Your task to perform on an android device: turn off location history Image 0: 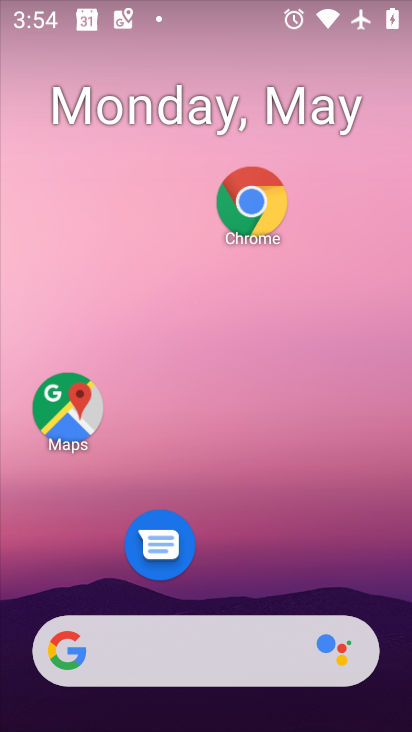
Step 0: drag from (227, 592) to (271, 147)
Your task to perform on an android device: turn off location history Image 1: 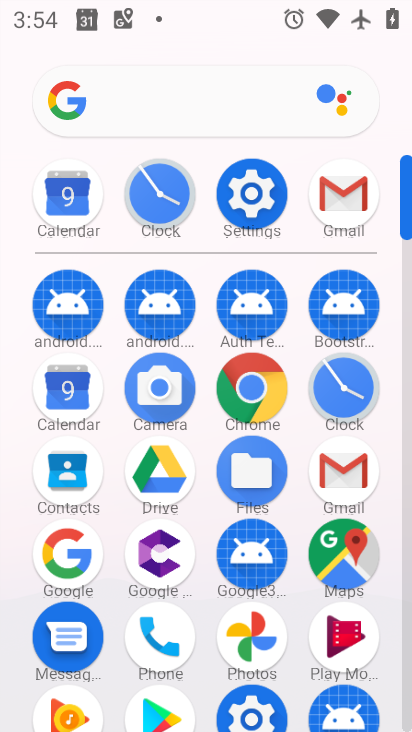
Step 1: click (248, 218)
Your task to perform on an android device: turn off location history Image 2: 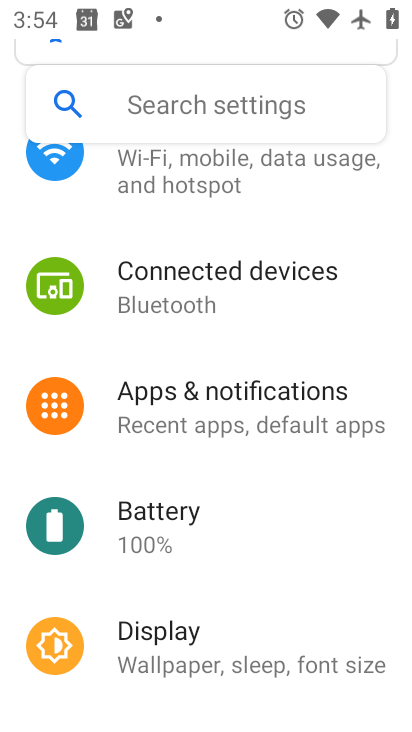
Step 2: drag from (244, 553) to (246, 260)
Your task to perform on an android device: turn off location history Image 3: 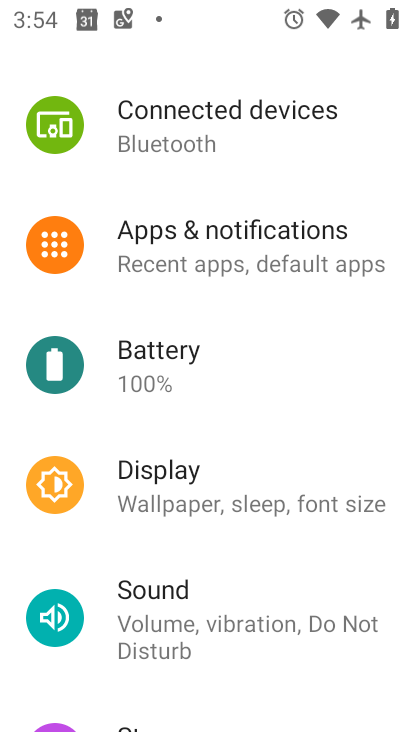
Step 3: drag from (259, 562) to (261, 288)
Your task to perform on an android device: turn off location history Image 4: 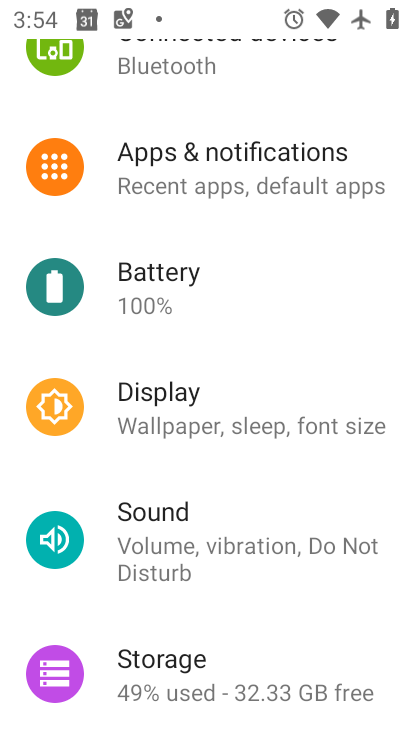
Step 4: drag from (232, 622) to (240, 334)
Your task to perform on an android device: turn off location history Image 5: 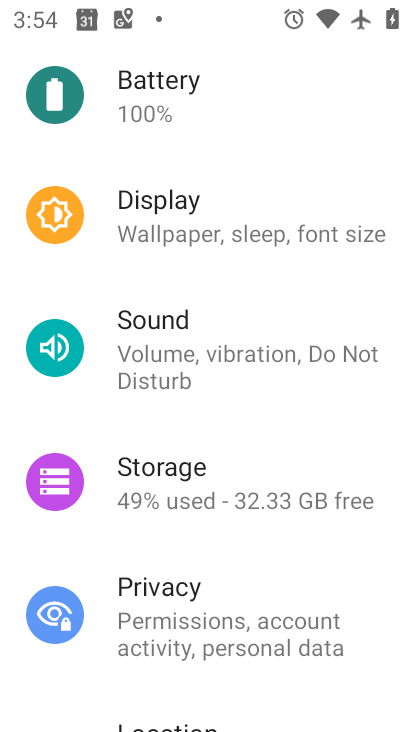
Step 5: drag from (252, 601) to (264, 223)
Your task to perform on an android device: turn off location history Image 6: 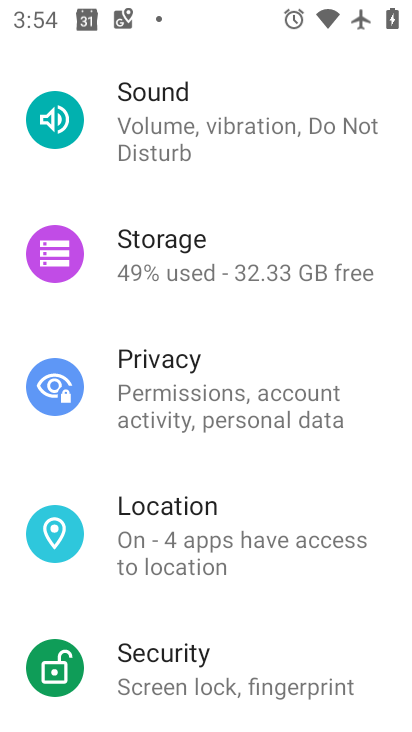
Step 6: click (218, 519)
Your task to perform on an android device: turn off location history Image 7: 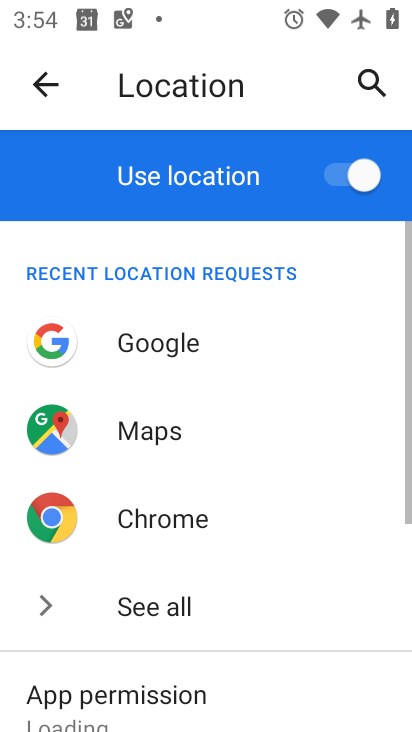
Step 7: drag from (262, 633) to (287, 197)
Your task to perform on an android device: turn off location history Image 8: 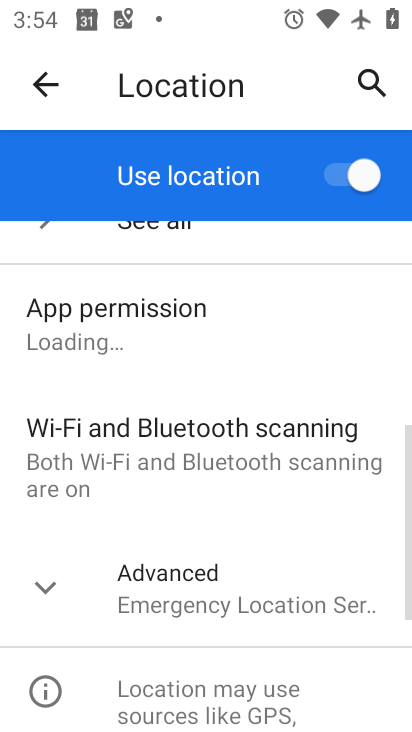
Step 8: drag from (258, 592) to (270, 295)
Your task to perform on an android device: turn off location history Image 9: 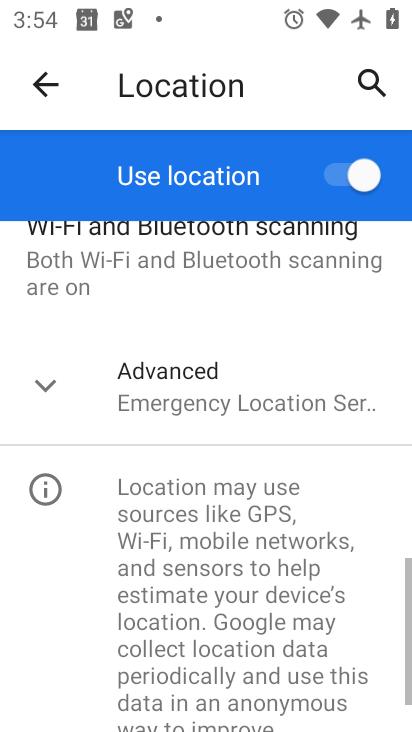
Step 9: click (247, 372)
Your task to perform on an android device: turn off location history Image 10: 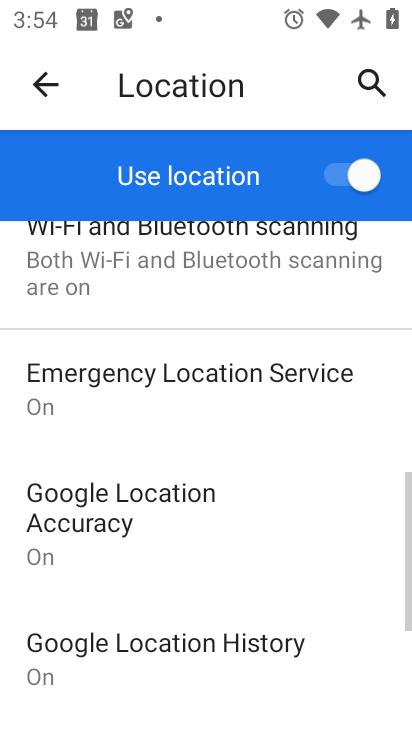
Step 10: click (233, 633)
Your task to perform on an android device: turn off location history Image 11: 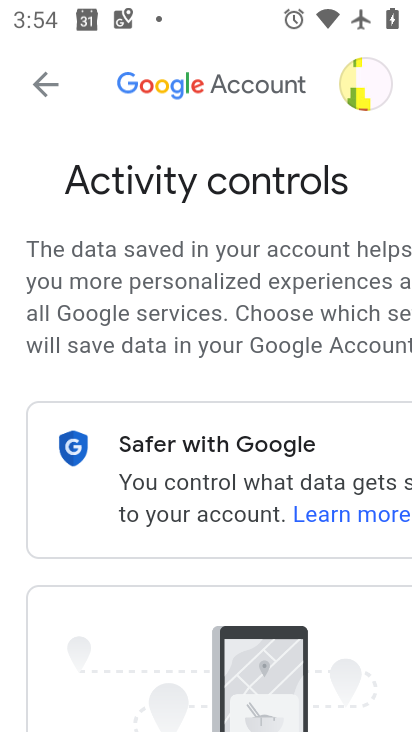
Step 11: task complete